Your task to perform on an android device: open a new tab in the chrome app Image 0: 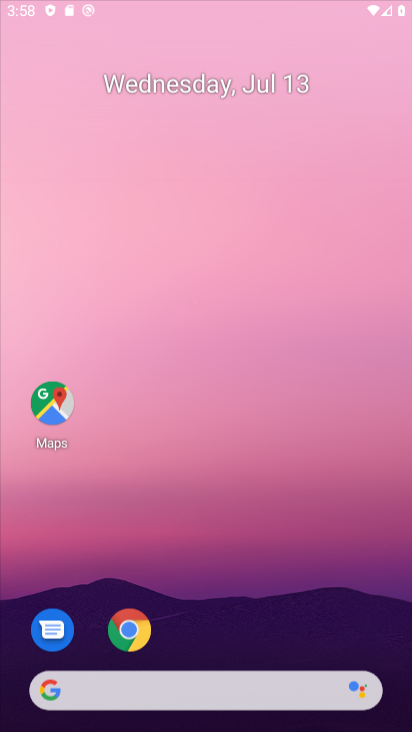
Step 0: press home button
Your task to perform on an android device: open a new tab in the chrome app Image 1: 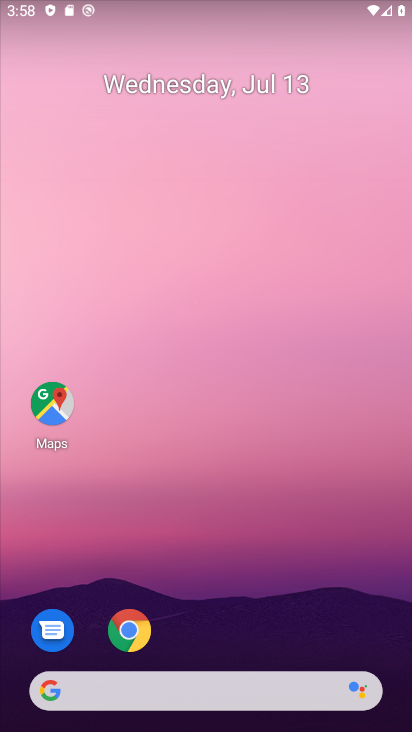
Step 1: drag from (249, 581) to (238, 66)
Your task to perform on an android device: open a new tab in the chrome app Image 2: 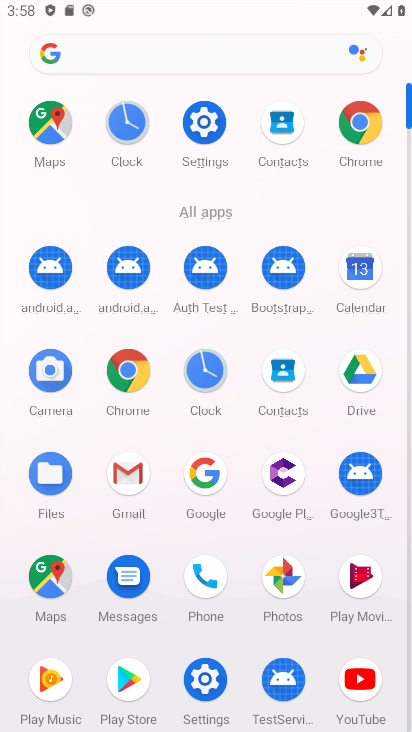
Step 2: click (363, 128)
Your task to perform on an android device: open a new tab in the chrome app Image 3: 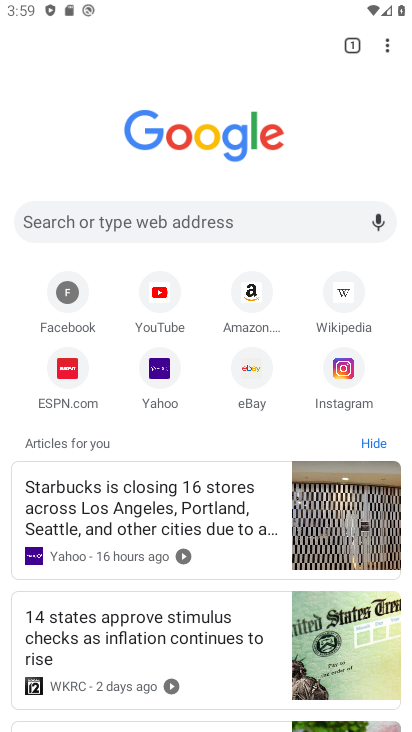
Step 3: click (354, 43)
Your task to perform on an android device: open a new tab in the chrome app Image 4: 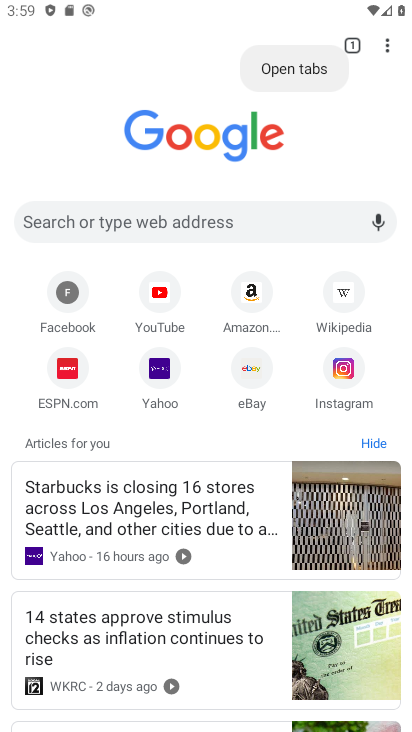
Step 4: click (354, 43)
Your task to perform on an android device: open a new tab in the chrome app Image 5: 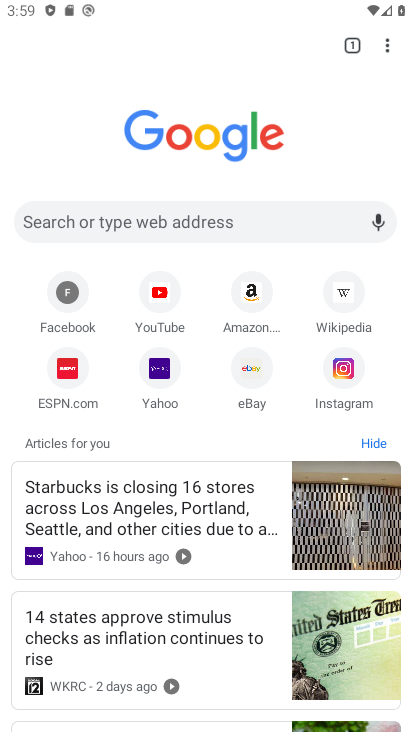
Step 5: drag from (352, 49) to (267, 88)
Your task to perform on an android device: open a new tab in the chrome app Image 6: 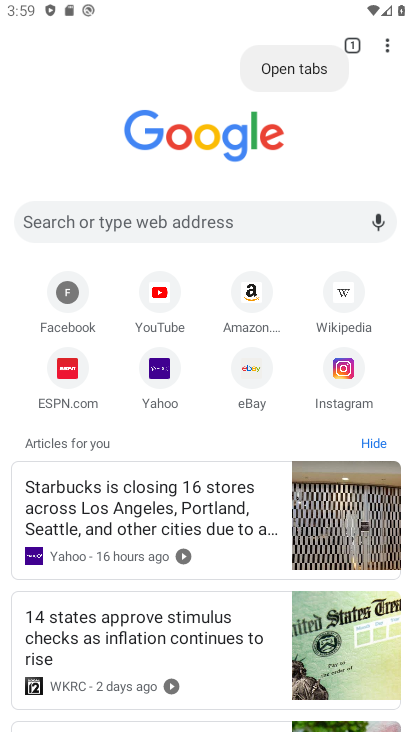
Step 6: click (286, 72)
Your task to perform on an android device: open a new tab in the chrome app Image 7: 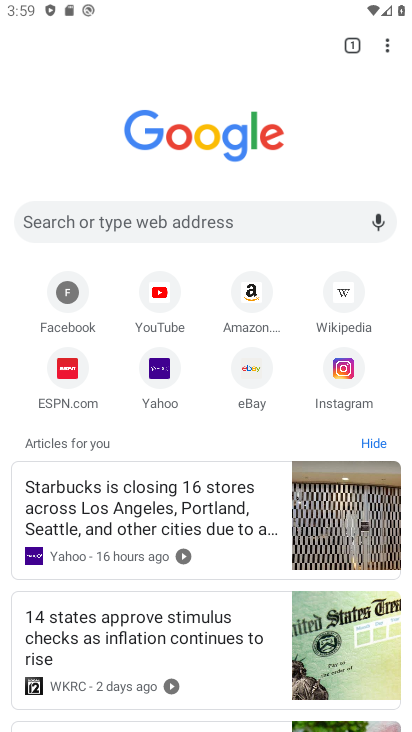
Step 7: click (360, 42)
Your task to perform on an android device: open a new tab in the chrome app Image 8: 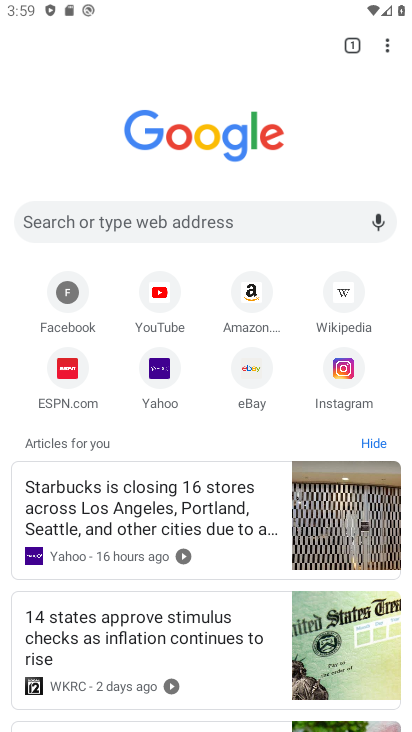
Step 8: click (360, 42)
Your task to perform on an android device: open a new tab in the chrome app Image 9: 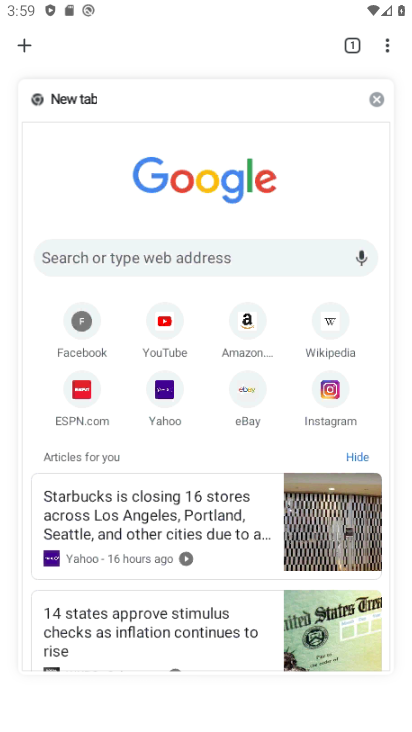
Step 9: task complete